Your task to perform on an android device: turn off notifications settings in the gmail app Image 0: 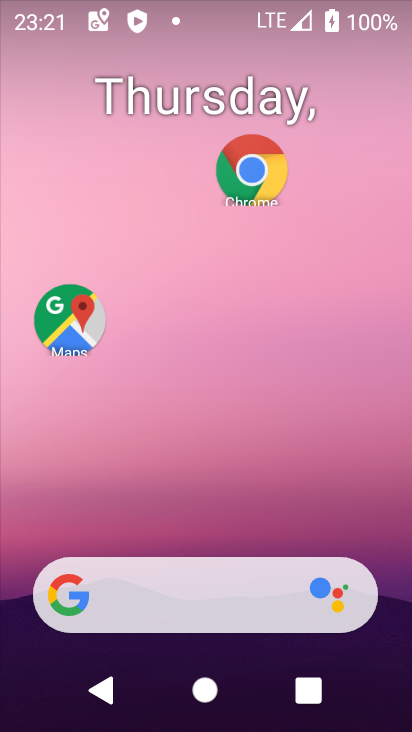
Step 0: drag from (166, 560) to (185, 203)
Your task to perform on an android device: turn off notifications settings in the gmail app Image 1: 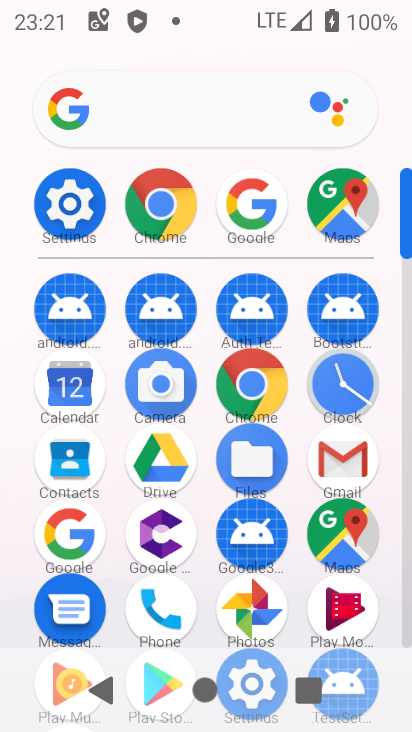
Step 1: click (342, 457)
Your task to perform on an android device: turn off notifications settings in the gmail app Image 2: 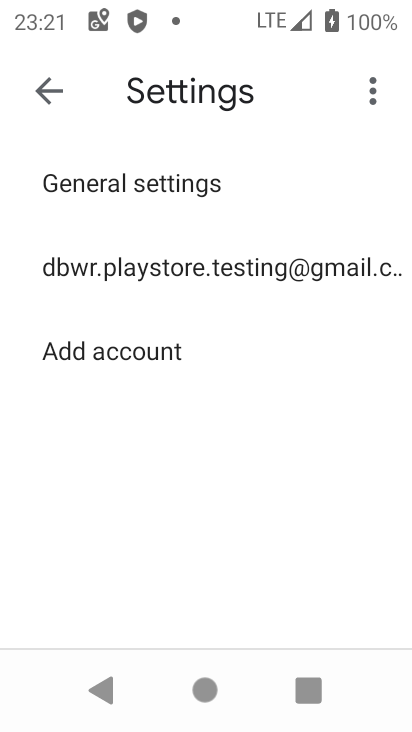
Step 2: click (172, 188)
Your task to perform on an android device: turn off notifications settings in the gmail app Image 3: 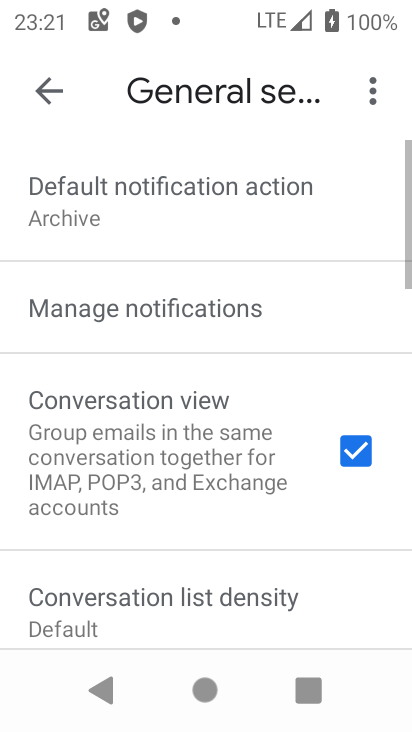
Step 3: click (114, 314)
Your task to perform on an android device: turn off notifications settings in the gmail app Image 4: 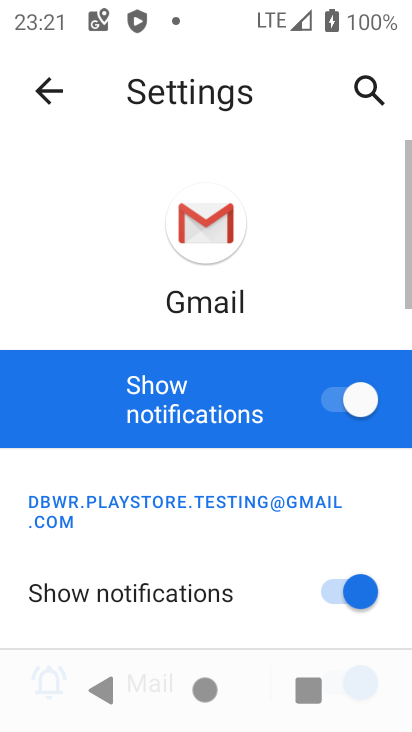
Step 4: click (344, 402)
Your task to perform on an android device: turn off notifications settings in the gmail app Image 5: 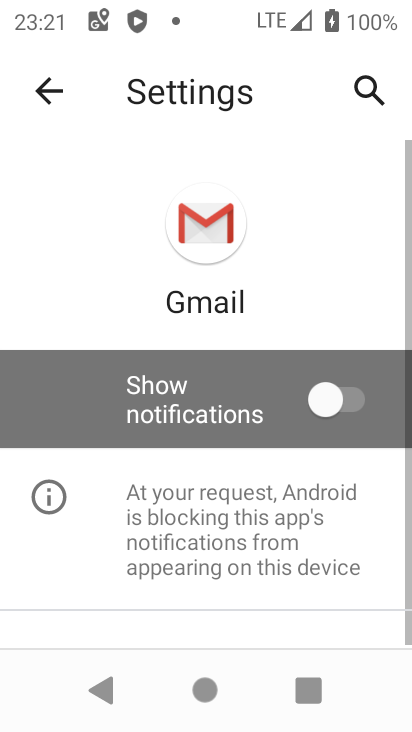
Step 5: task complete